Your task to perform on an android device: Go to wifi settings Image 0: 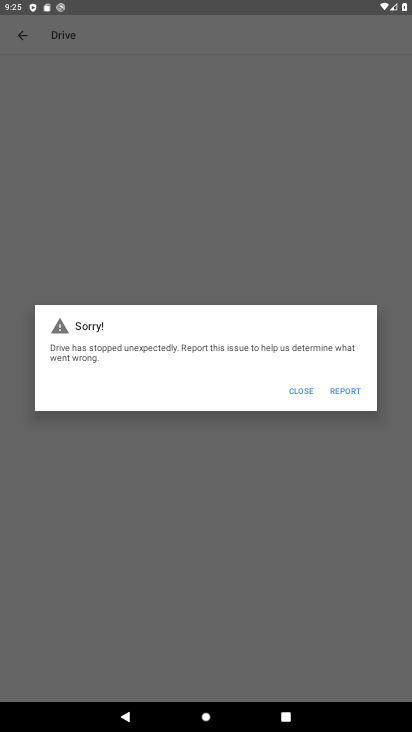
Step 0: press home button
Your task to perform on an android device: Go to wifi settings Image 1: 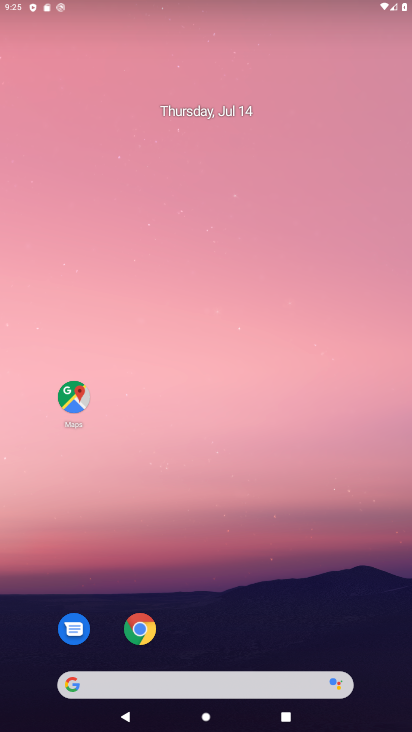
Step 1: drag from (217, 604) to (239, 98)
Your task to perform on an android device: Go to wifi settings Image 2: 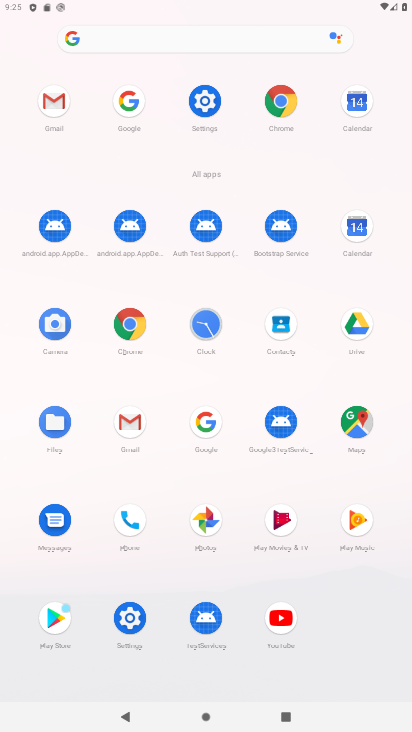
Step 2: click (199, 101)
Your task to perform on an android device: Go to wifi settings Image 3: 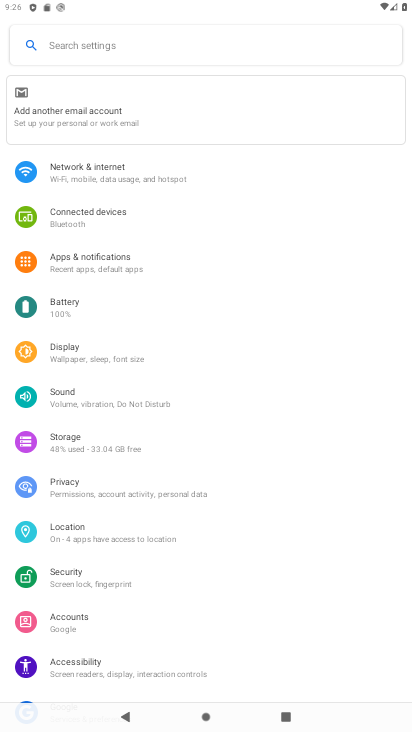
Step 3: click (108, 172)
Your task to perform on an android device: Go to wifi settings Image 4: 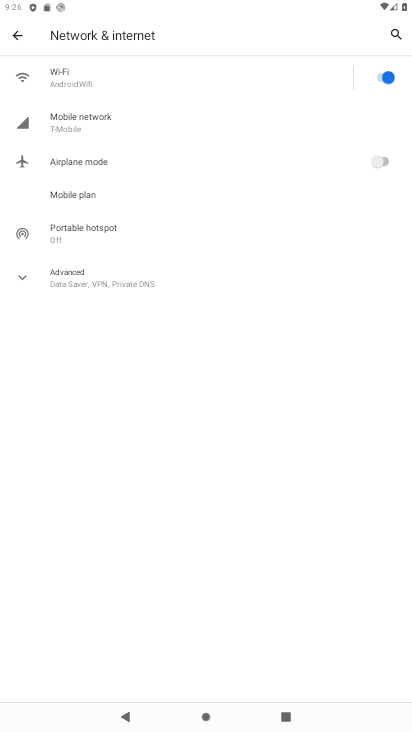
Step 4: click (182, 84)
Your task to perform on an android device: Go to wifi settings Image 5: 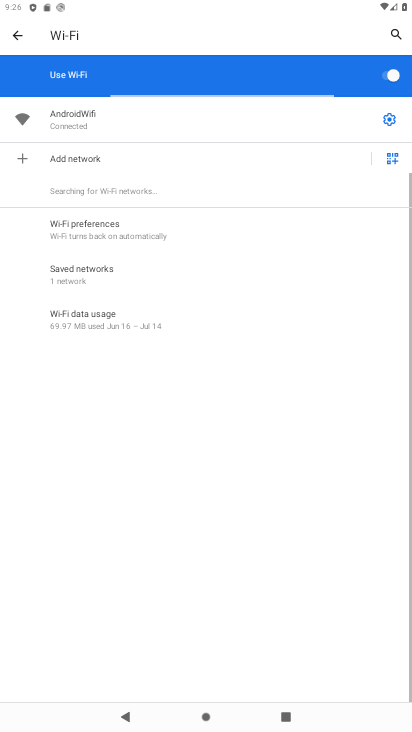
Step 5: click (186, 117)
Your task to perform on an android device: Go to wifi settings Image 6: 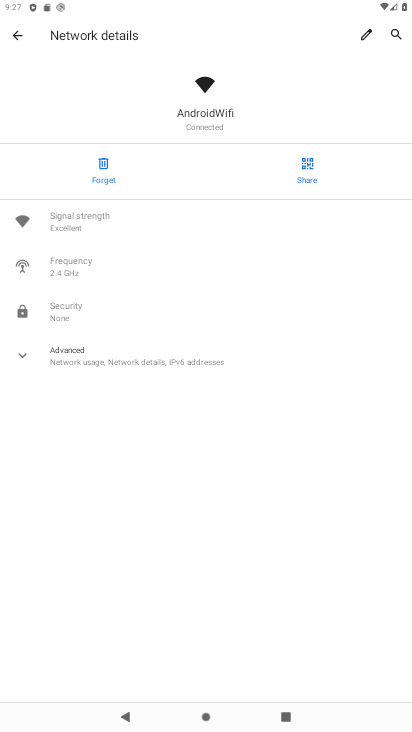
Step 6: task complete